Your task to perform on an android device: star an email in the gmail app Image 0: 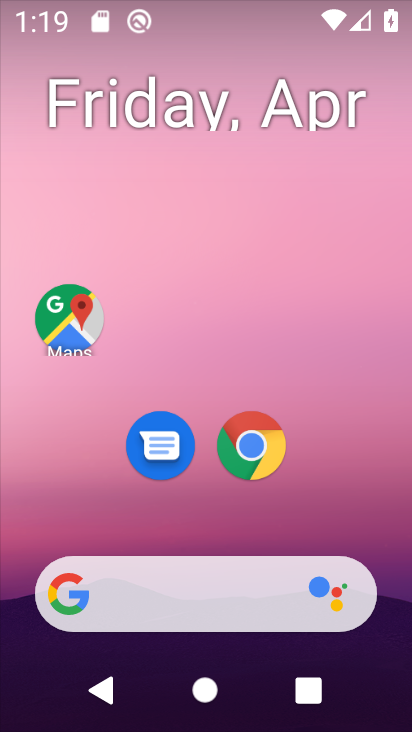
Step 0: drag from (368, 495) to (356, 100)
Your task to perform on an android device: star an email in the gmail app Image 1: 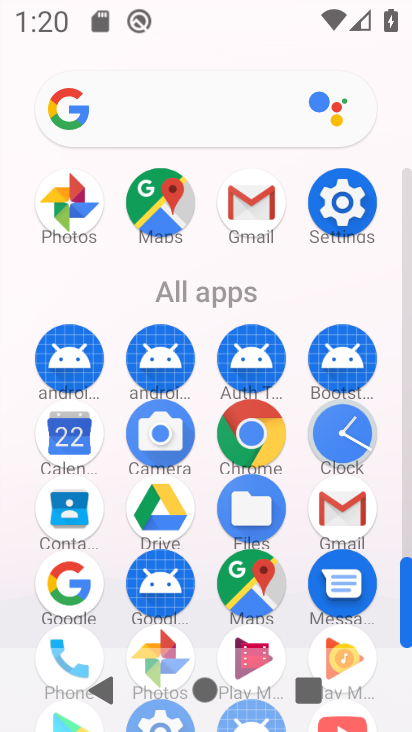
Step 1: click (339, 518)
Your task to perform on an android device: star an email in the gmail app Image 2: 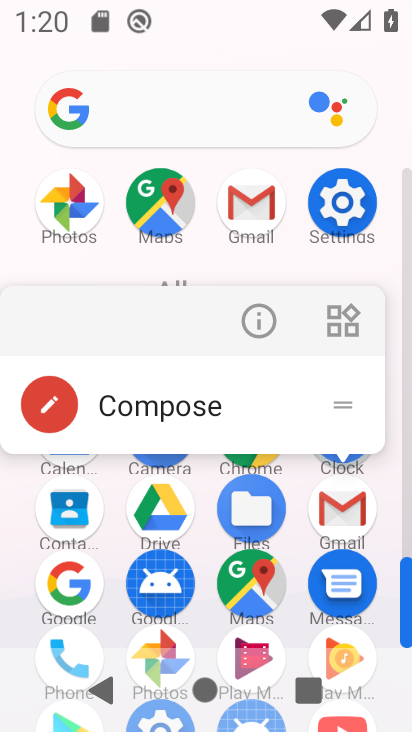
Step 2: click (338, 499)
Your task to perform on an android device: star an email in the gmail app Image 3: 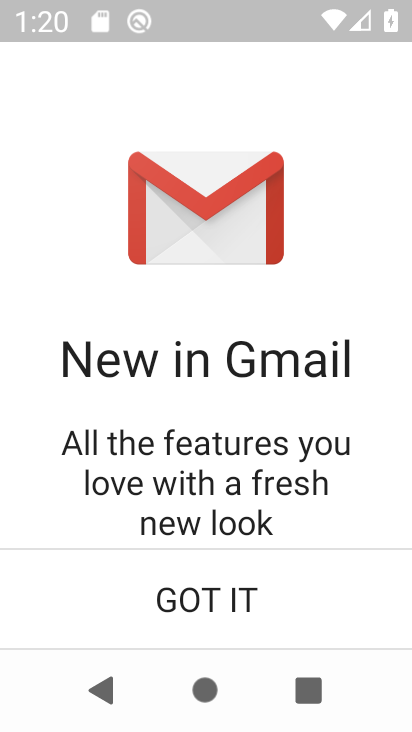
Step 3: click (253, 592)
Your task to perform on an android device: star an email in the gmail app Image 4: 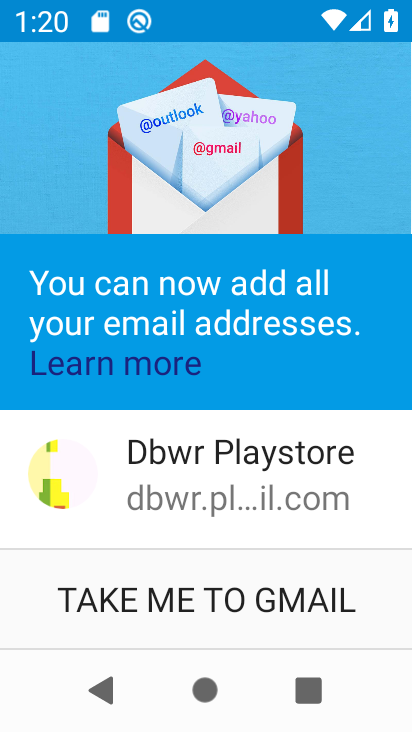
Step 4: click (332, 602)
Your task to perform on an android device: star an email in the gmail app Image 5: 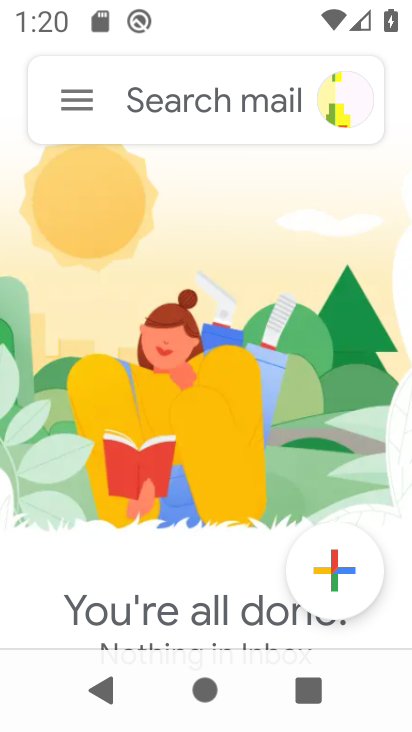
Step 5: click (86, 99)
Your task to perform on an android device: star an email in the gmail app Image 6: 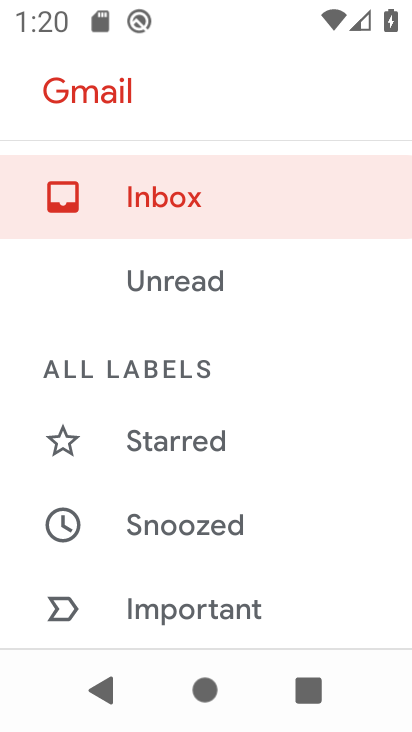
Step 6: click (180, 208)
Your task to perform on an android device: star an email in the gmail app Image 7: 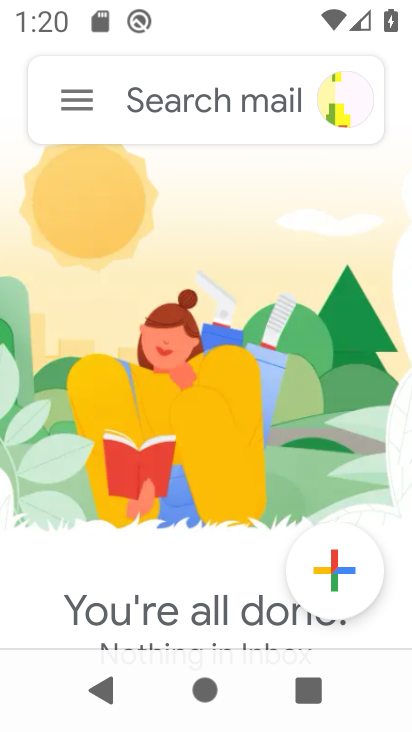
Step 7: task complete